Your task to perform on an android device: Is it going to rain this weekend? Image 0: 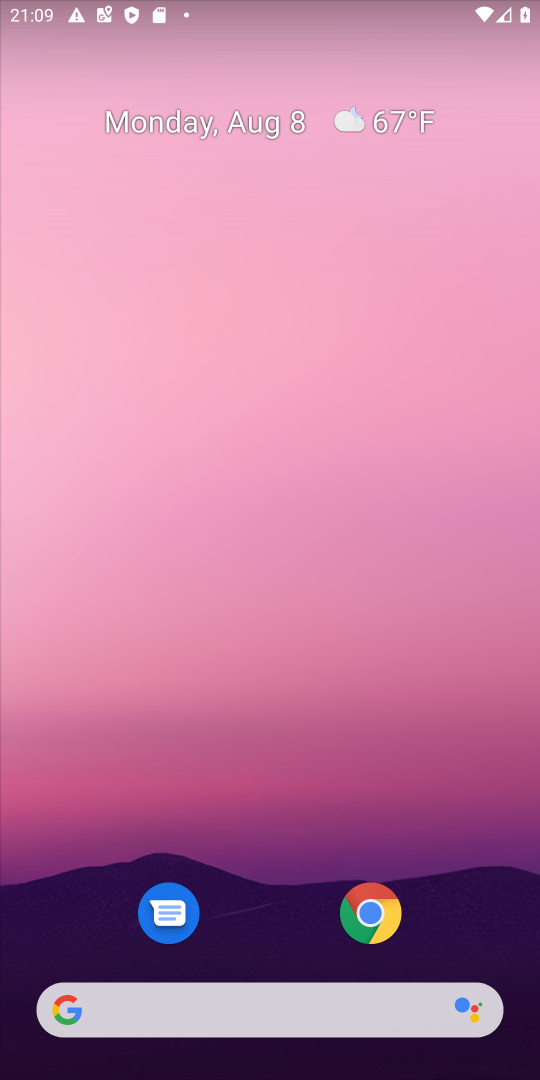
Step 0: drag from (253, 1002) to (404, 174)
Your task to perform on an android device: Is it going to rain this weekend? Image 1: 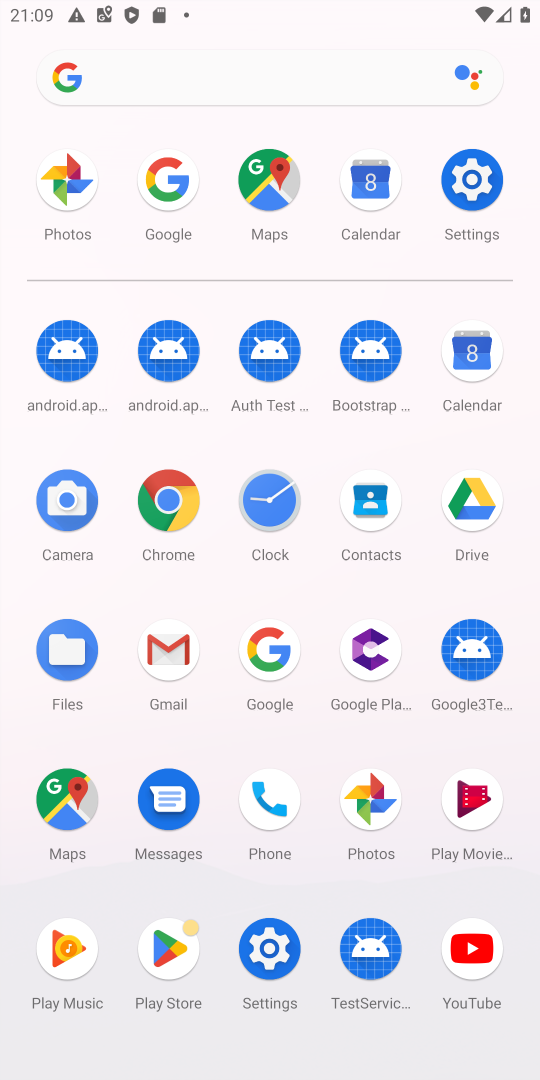
Step 1: click (163, 179)
Your task to perform on an android device: Is it going to rain this weekend? Image 2: 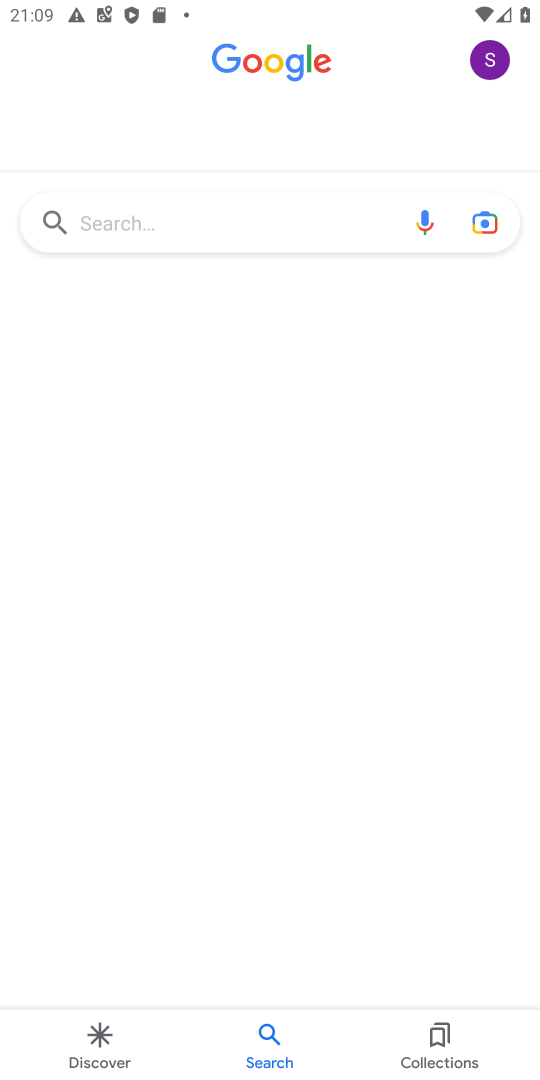
Step 2: click (183, 213)
Your task to perform on an android device: Is it going to rain this weekend? Image 3: 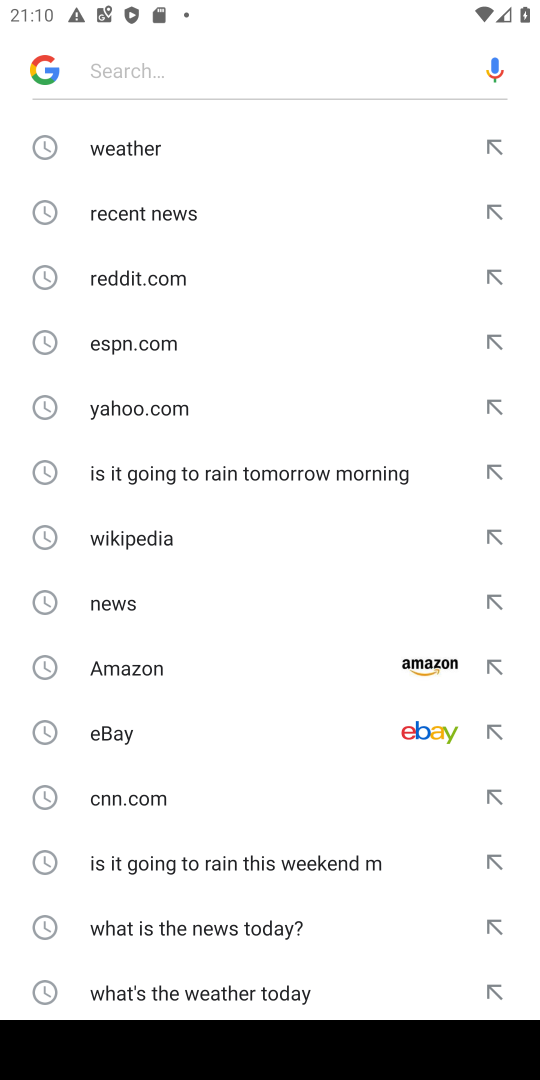
Step 3: type "Is it going to rain this weekend?"
Your task to perform on an android device: Is it going to rain this weekend? Image 4: 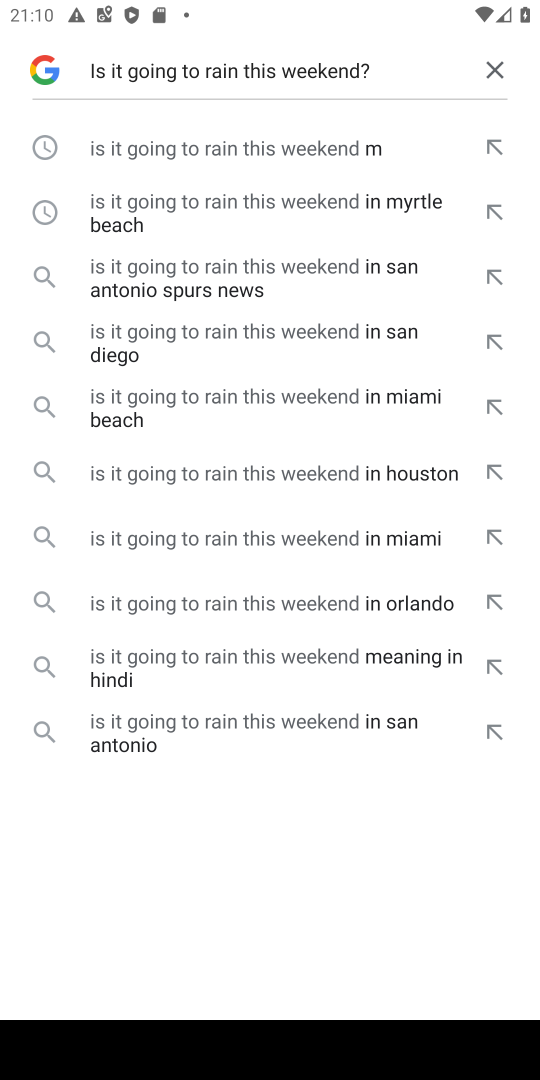
Step 4: click (253, 469)
Your task to perform on an android device: Is it going to rain this weekend? Image 5: 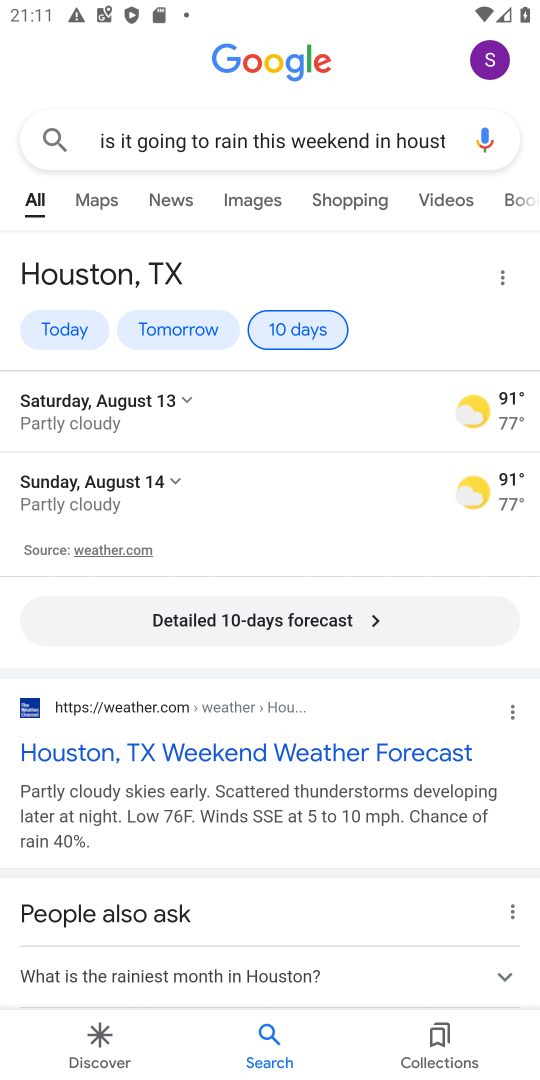
Step 5: task complete